Your task to perform on an android device: turn off smart reply in the gmail app Image 0: 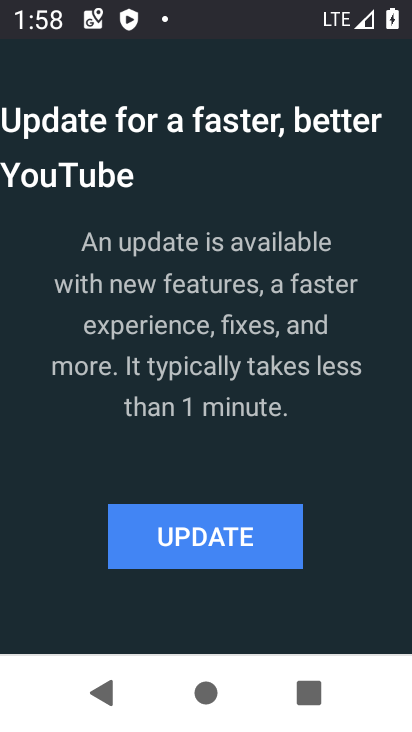
Step 0: press home button
Your task to perform on an android device: turn off smart reply in the gmail app Image 1: 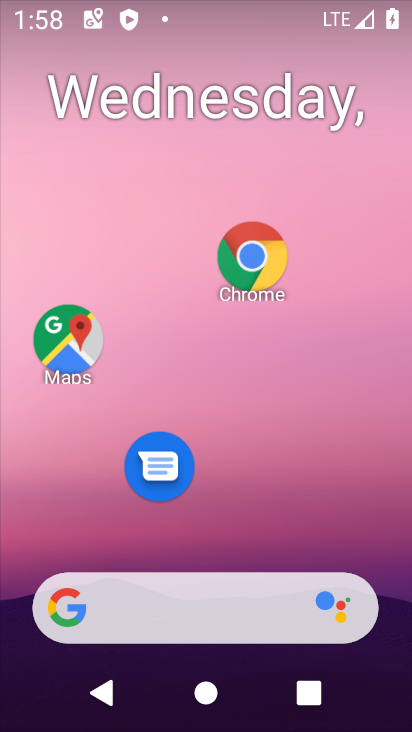
Step 1: drag from (324, 499) to (333, 66)
Your task to perform on an android device: turn off smart reply in the gmail app Image 2: 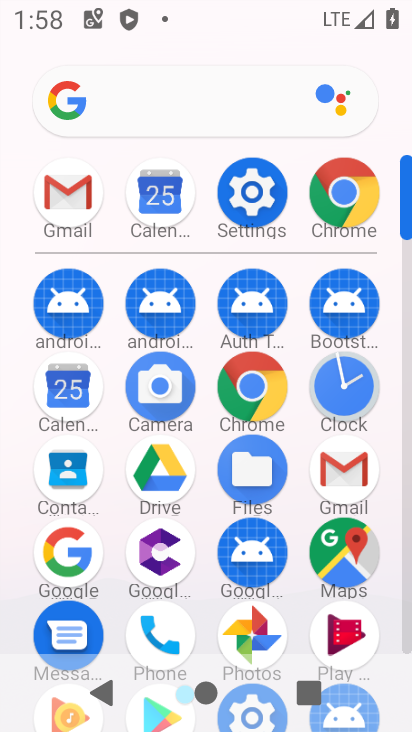
Step 2: click (331, 457)
Your task to perform on an android device: turn off smart reply in the gmail app Image 3: 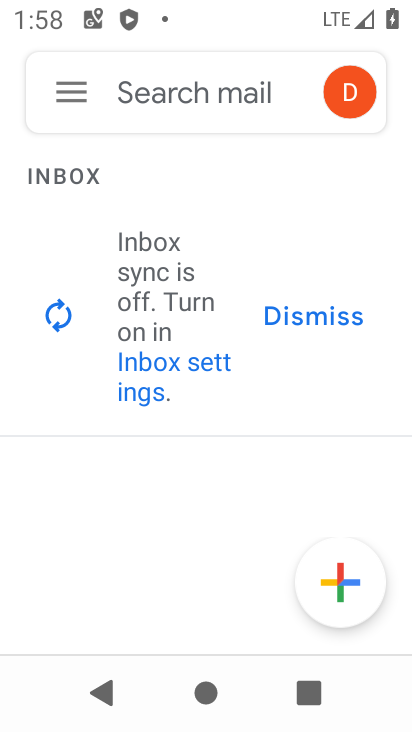
Step 3: click (80, 88)
Your task to perform on an android device: turn off smart reply in the gmail app Image 4: 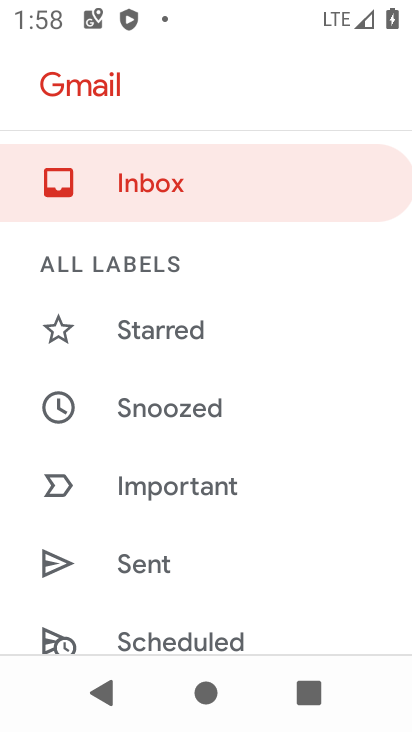
Step 4: drag from (316, 596) to (267, 94)
Your task to perform on an android device: turn off smart reply in the gmail app Image 5: 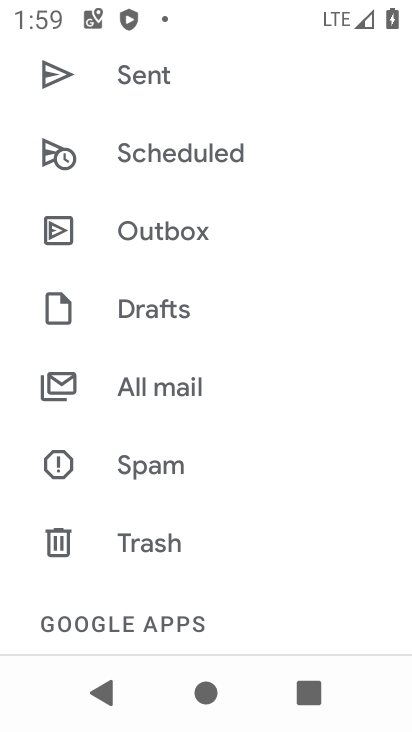
Step 5: drag from (268, 474) to (234, 84)
Your task to perform on an android device: turn off smart reply in the gmail app Image 6: 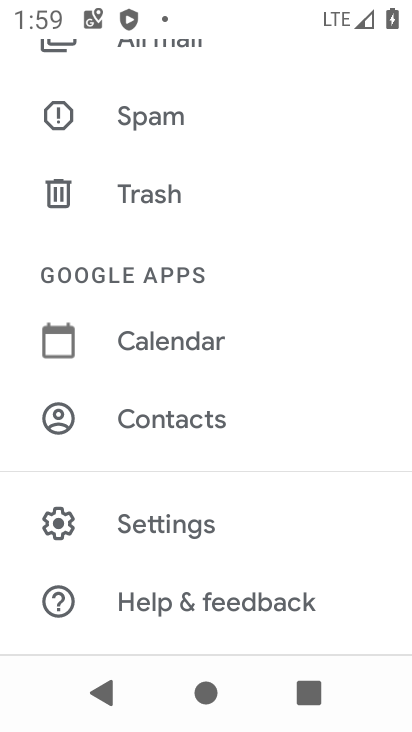
Step 6: click (165, 530)
Your task to perform on an android device: turn off smart reply in the gmail app Image 7: 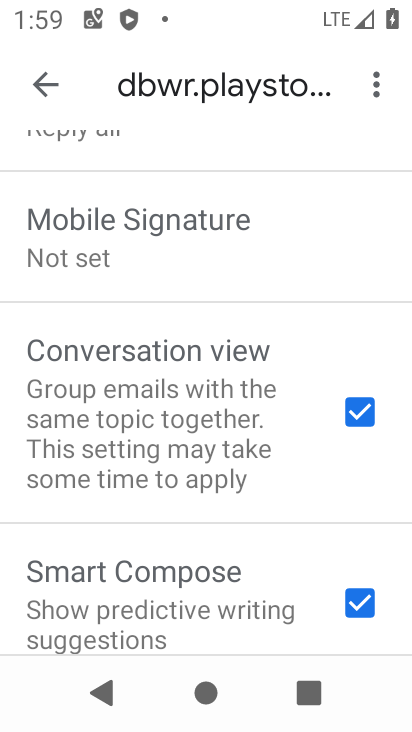
Step 7: drag from (267, 513) to (231, 177)
Your task to perform on an android device: turn off smart reply in the gmail app Image 8: 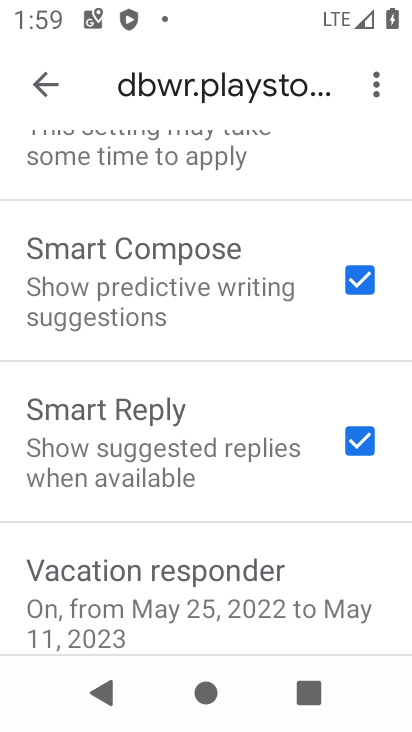
Step 8: click (368, 431)
Your task to perform on an android device: turn off smart reply in the gmail app Image 9: 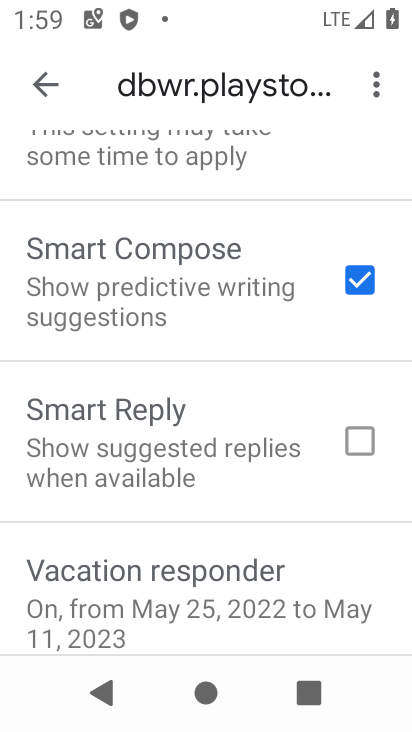
Step 9: task complete